Your task to perform on an android device: turn vacation reply on in the gmail app Image 0: 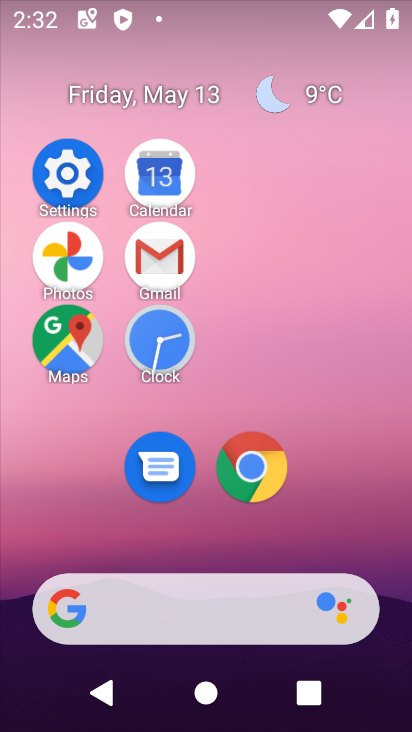
Step 0: click (155, 249)
Your task to perform on an android device: turn vacation reply on in the gmail app Image 1: 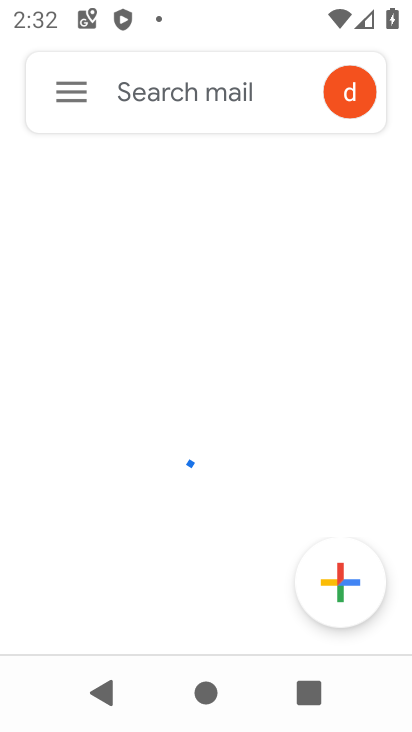
Step 1: click (61, 115)
Your task to perform on an android device: turn vacation reply on in the gmail app Image 2: 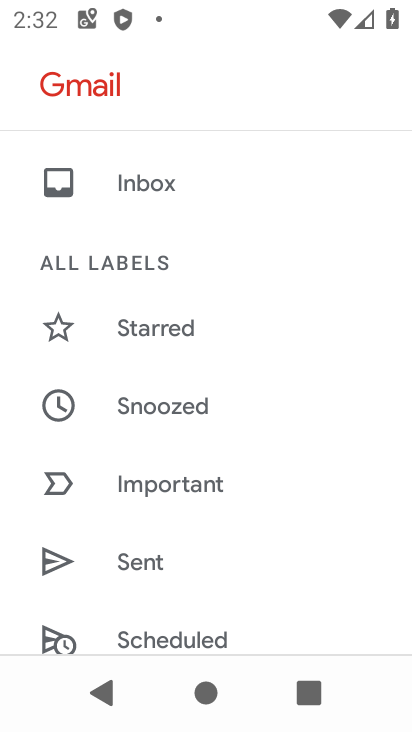
Step 2: drag from (174, 558) to (198, 211)
Your task to perform on an android device: turn vacation reply on in the gmail app Image 3: 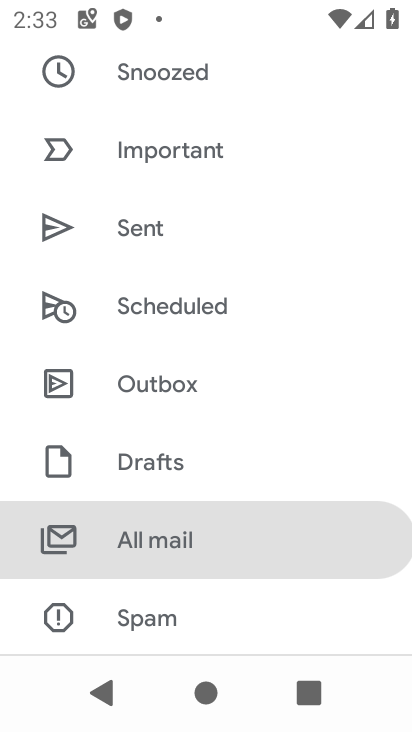
Step 3: drag from (214, 469) to (247, 180)
Your task to perform on an android device: turn vacation reply on in the gmail app Image 4: 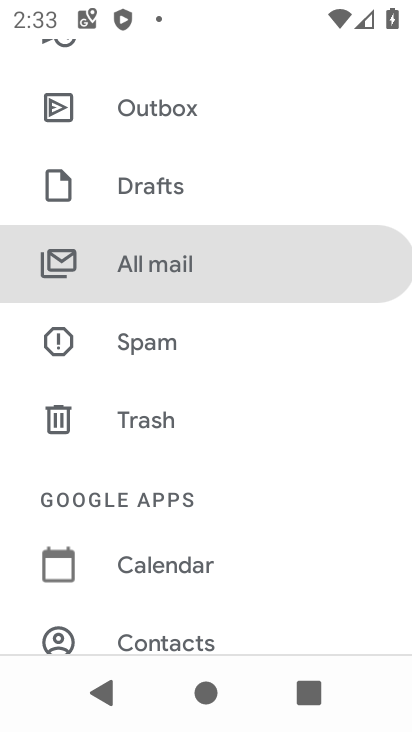
Step 4: drag from (249, 495) to (258, 239)
Your task to perform on an android device: turn vacation reply on in the gmail app Image 5: 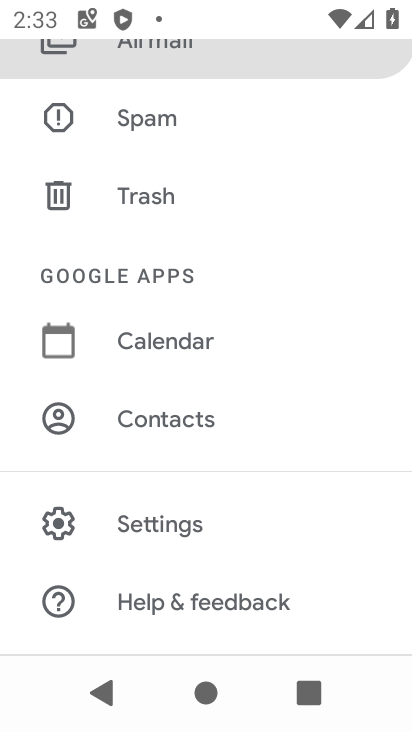
Step 5: click (217, 519)
Your task to perform on an android device: turn vacation reply on in the gmail app Image 6: 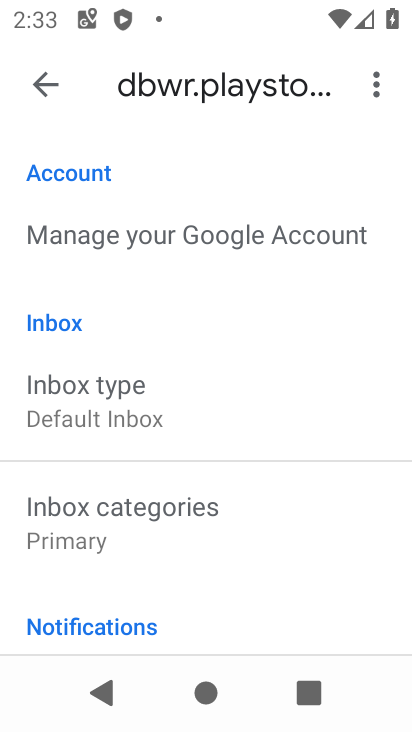
Step 6: drag from (217, 519) to (239, 225)
Your task to perform on an android device: turn vacation reply on in the gmail app Image 7: 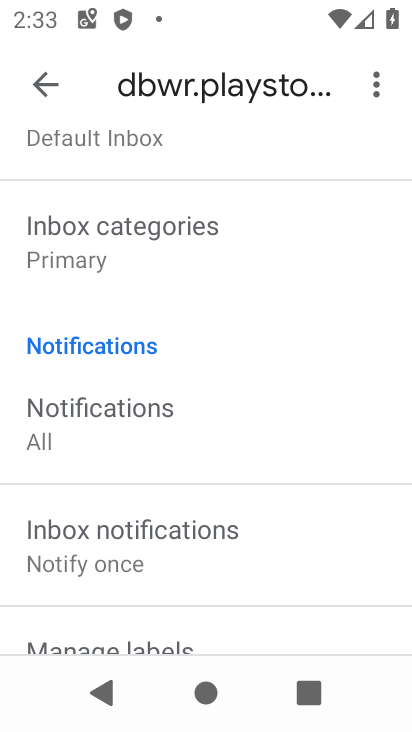
Step 7: drag from (188, 518) to (238, 178)
Your task to perform on an android device: turn vacation reply on in the gmail app Image 8: 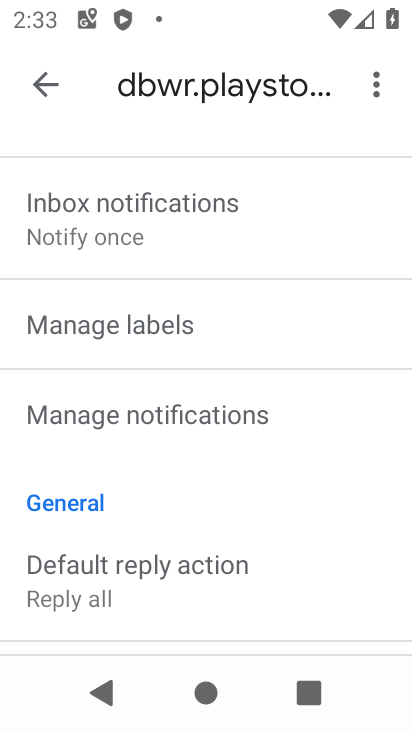
Step 8: drag from (203, 523) to (259, 194)
Your task to perform on an android device: turn vacation reply on in the gmail app Image 9: 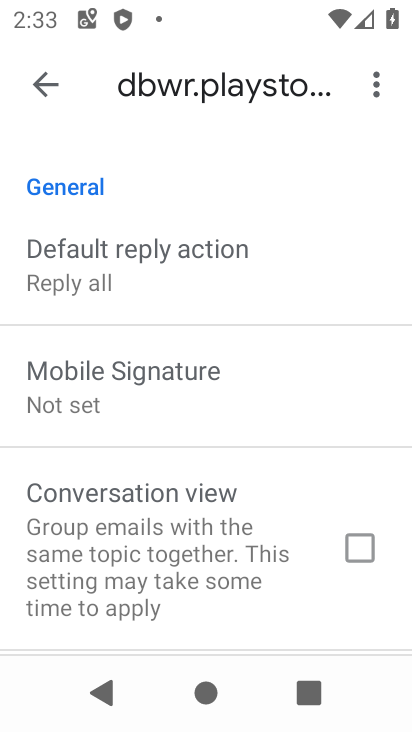
Step 9: drag from (233, 551) to (288, 222)
Your task to perform on an android device: turn vacation reply on in the gmail app Image 10: 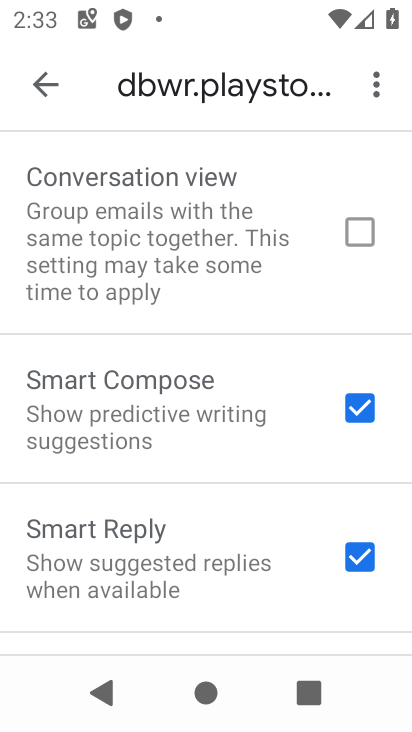
Step 10: drag from (262, 553) to (288, 226)
Your task to perform on an android device: turn vacation reply on in the gmail app Image 11: 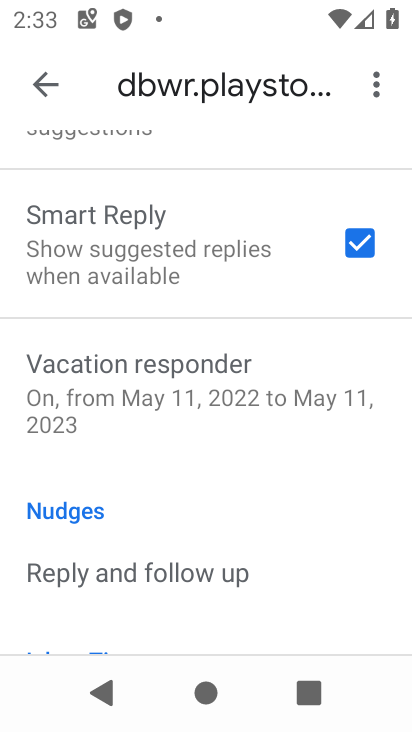
Step 11: click (260, 370)
Your task to perform on an android device: turn vacation reply on in the gmail app Image 12: 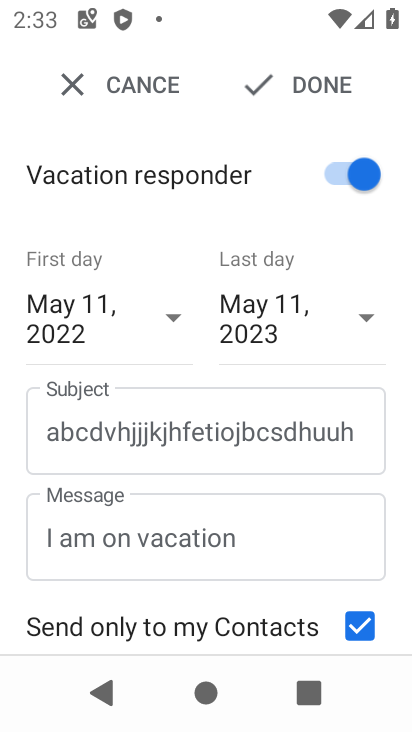
Step 12: task complete